Your task to perform on an android device: Open calendar and show me the second week of next month Image 0: 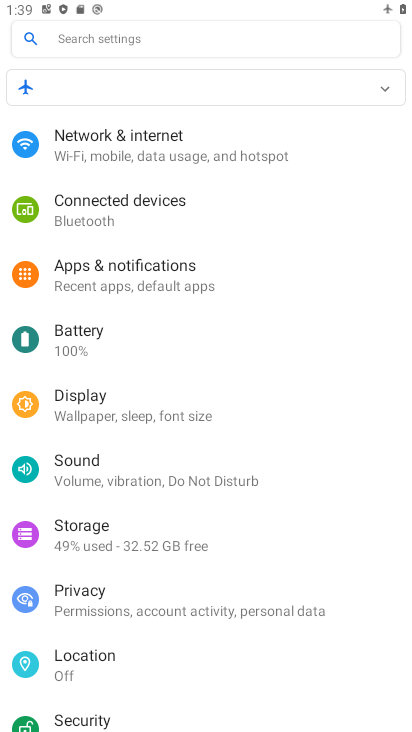
Step 0: press home button
Your task to perform on an android device: Open calendar and show me the second week of next month Image 1: 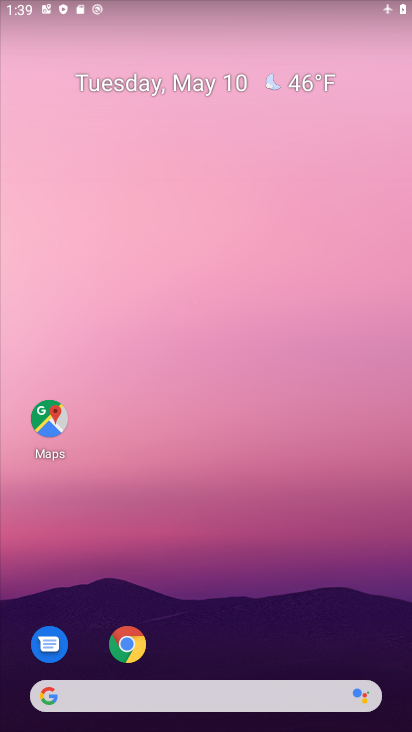
Step 1: drag from (273, 566) to (258, 174)
Your task to perform on an android device: Open calendar and show me the second week of next month Image 2: 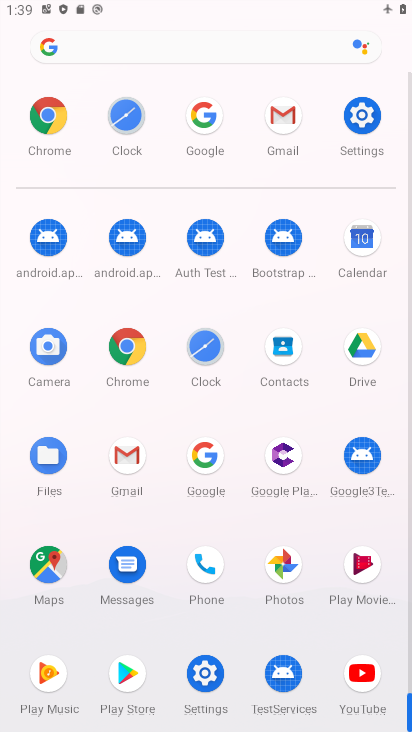
Step 2: click (354, 248)
Your task to perform on an android device: Open calendar and show me the second week of next month Image 3: 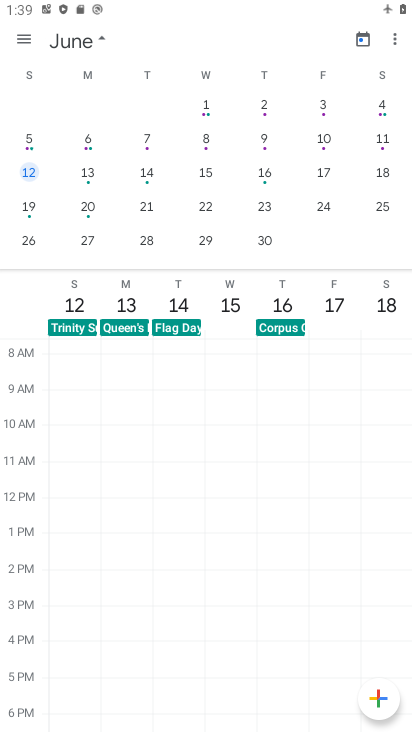
Step 3: click (107, 45)
Your task to perform on an android device: Open calendar and show me the second week of next month Image 4: 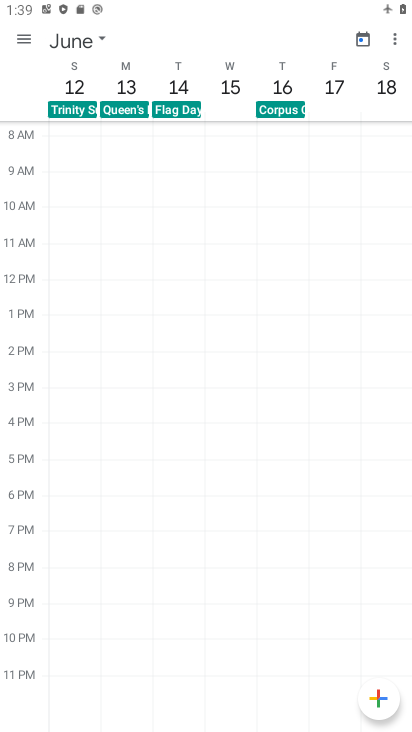
Step 4: click (102, 46)
Your task to perform on an android device: Open calendar and show me the second week of next month Image 5: 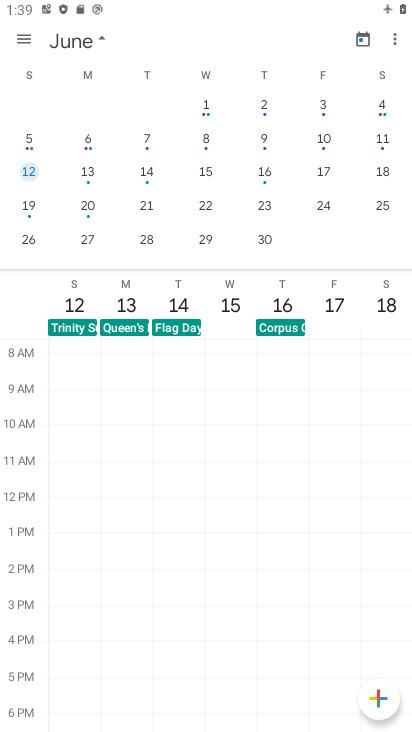
Step 5: click (32, 141)
Your task to perform on an android device: Open calendar and show me the second week of next month Image 6: 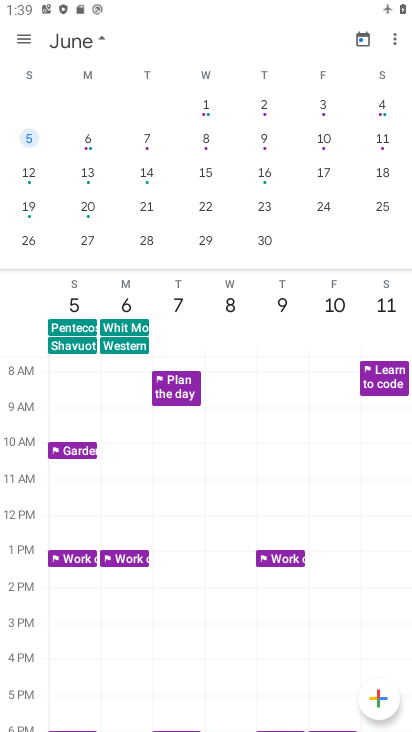
Step 6: task complete